Your task to perform on an android device: Search for "razer kraken" on walmart, select the first entry, and add it to the cart. Image 0: 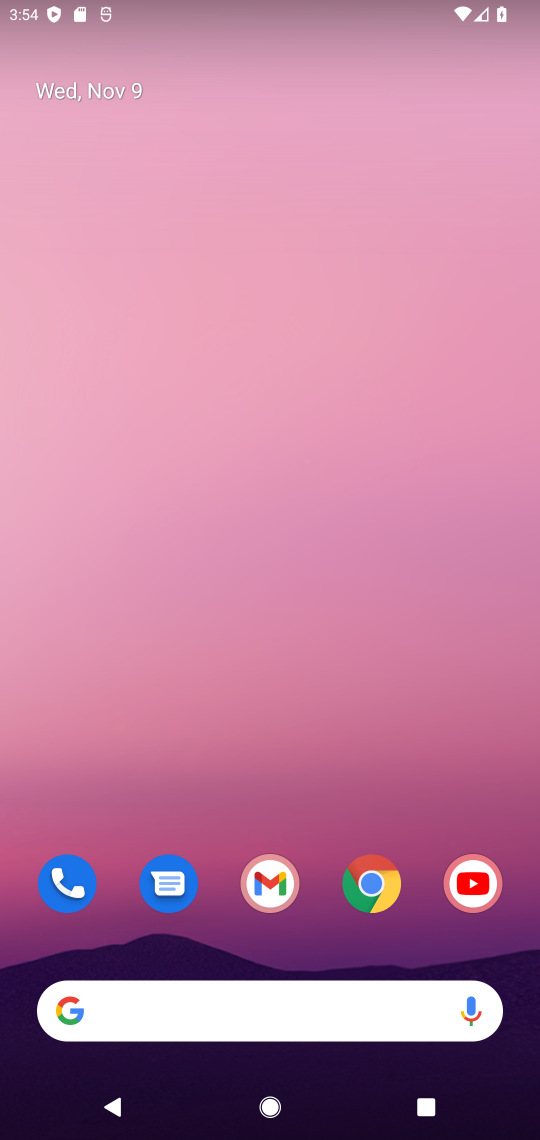
Step 0: click (388, 881)
Your task to perform on an android device: Search for "razer kraken" on walmart, select the first entry, and add it to the cart. Image 1: 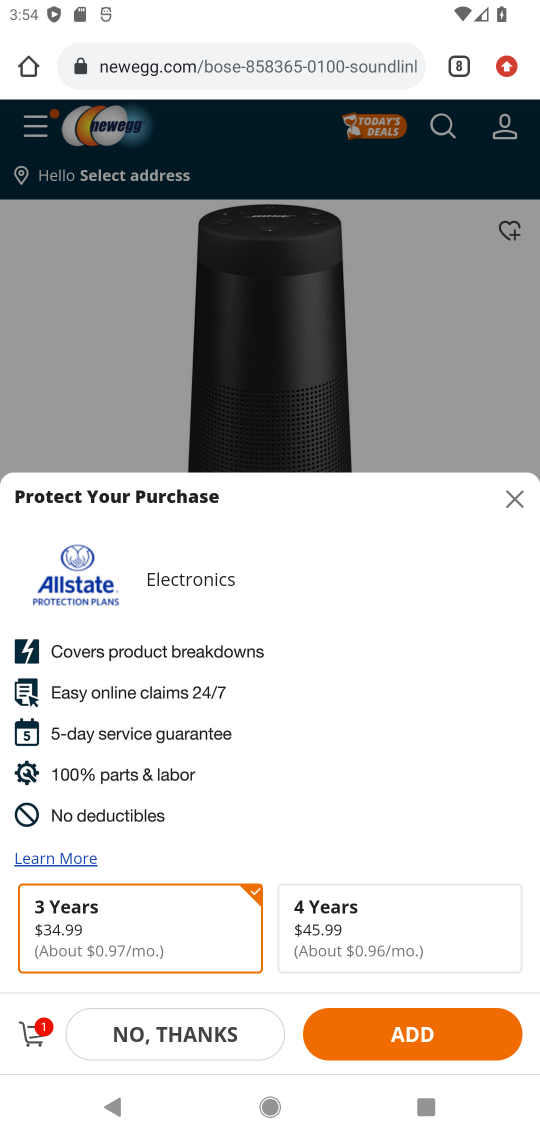
Step 1: click (464, 61)
Your task to perform on an android device: Search for "razer kraken" on walmart, select the first entry, and add it to the cart. Image 2: 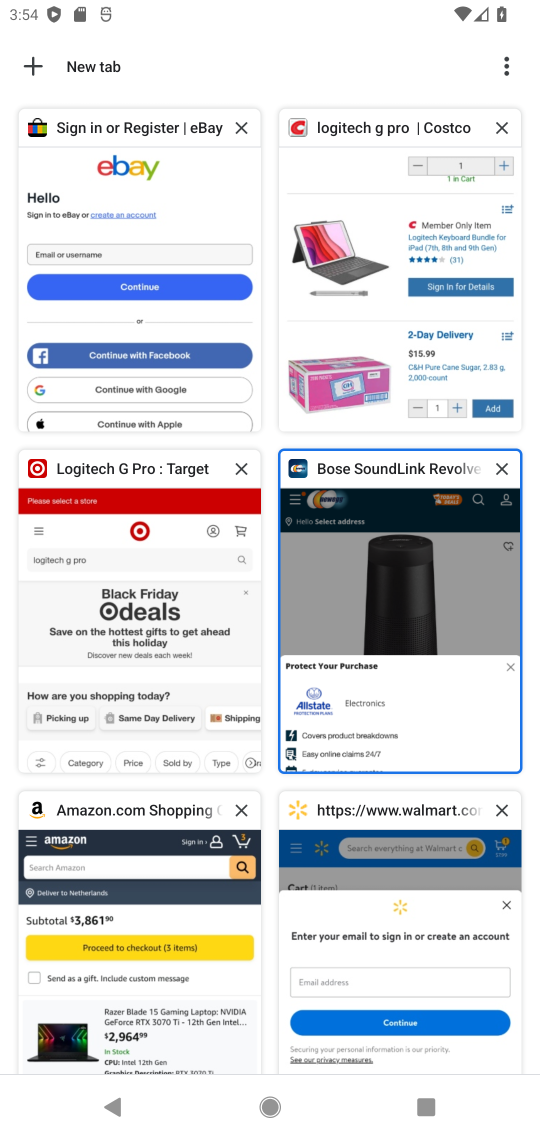
Step 2: click (337, 906)
Your task to perform on an android device: Search for "razer kraken" on walmart, select the first entry, and add it to the cart. Image 3: 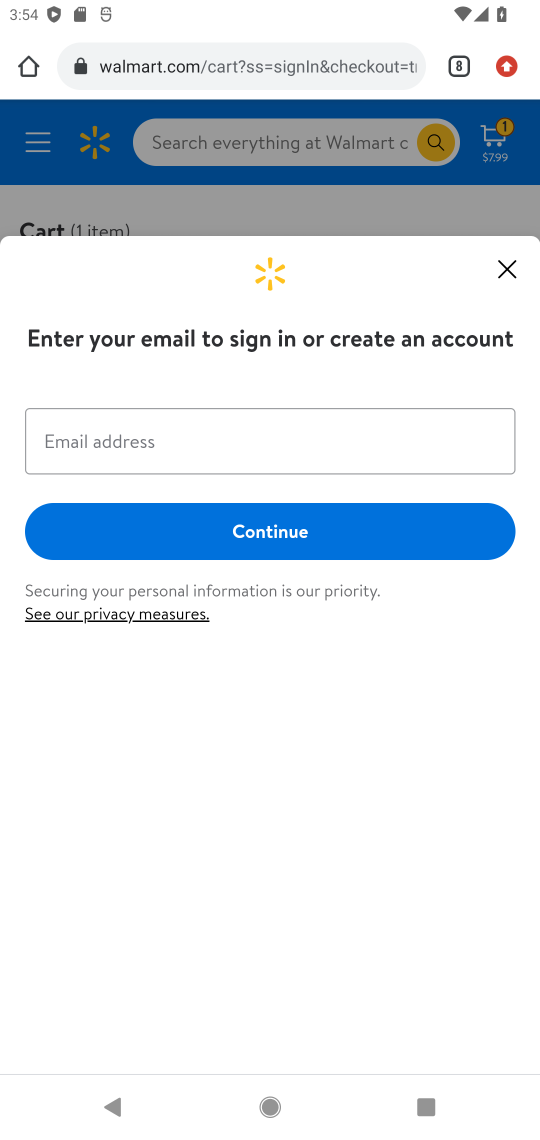
Step 3: click (514, 266)
Your task to perform on an android device: Search for "razer kraken" on walmart, select the first entry, and add it to the cart. Image 4: 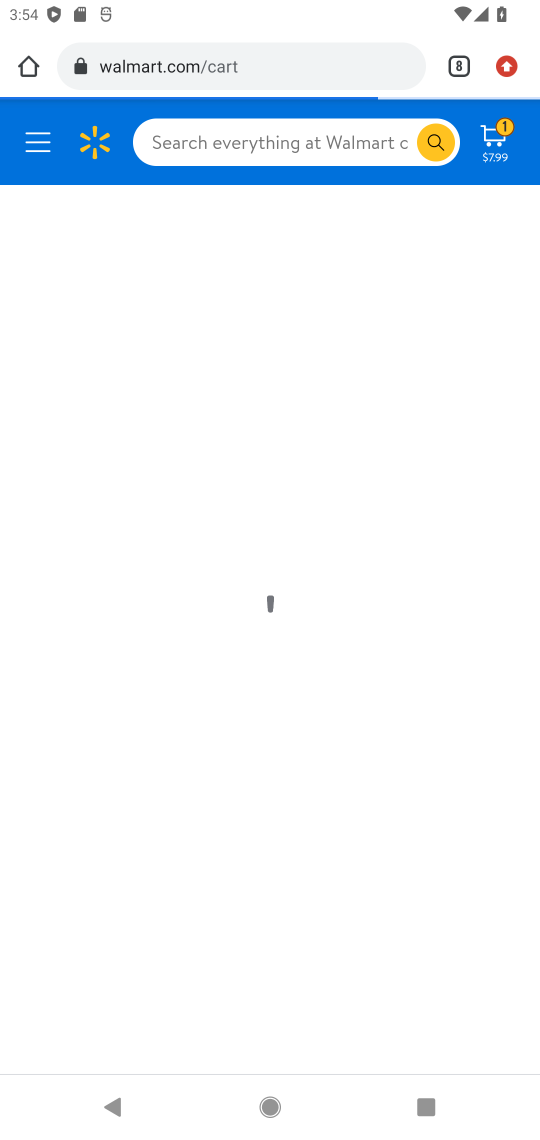
Step 4: click (298, 132)
Your task to perform on an android device: Search for "razer kraken" on walmart, select the first entry, and add it to the cart. Image 5: 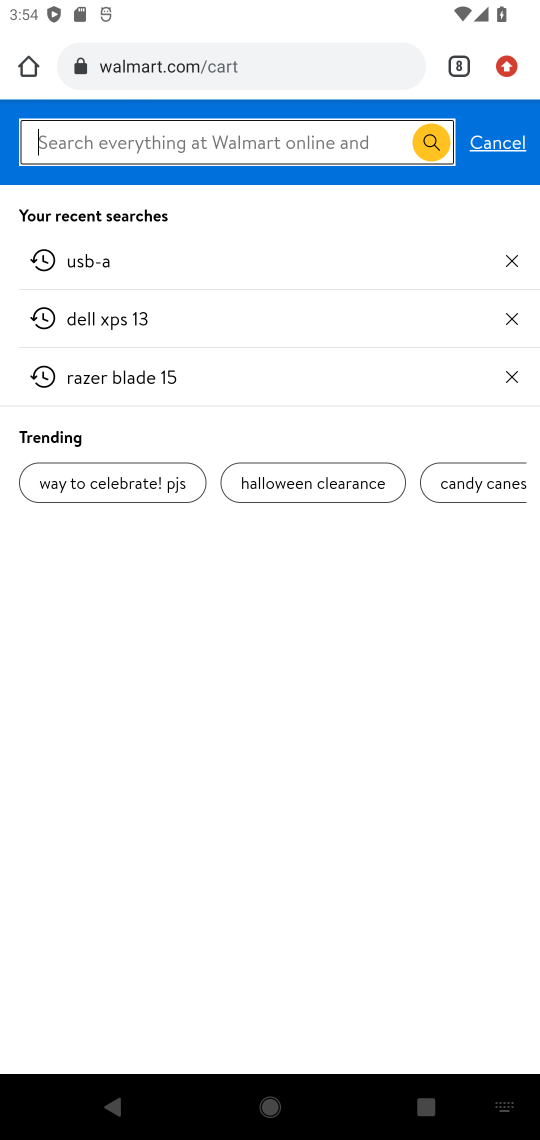
Step 5: type "razer kraken"
Your task to perform on an android device: Search for "razer kraken" on walmart, select the first entry, and add it to the cart. Image 6: 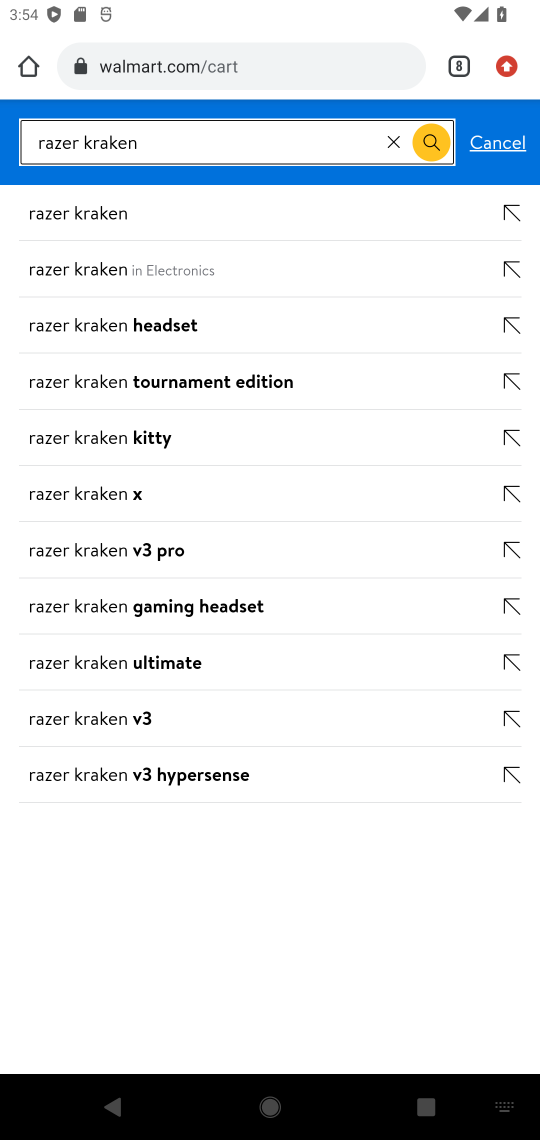
Step 6: click (94, 269)
Your task to perform on an android device: Search for "razer kraken" on walmart, select the first entry, and add it to the cart. Image 7: 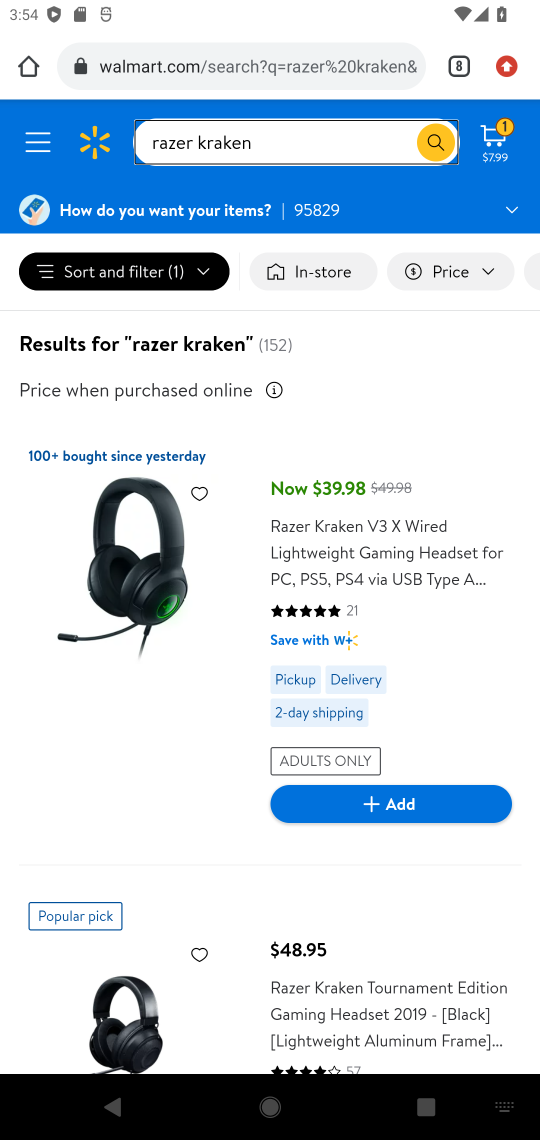
Step 7: click (394, 804)
Your task to perform on an android device: Search for "razer kraken" on walmart, select the first entry, and add it to the cart. Image 8: 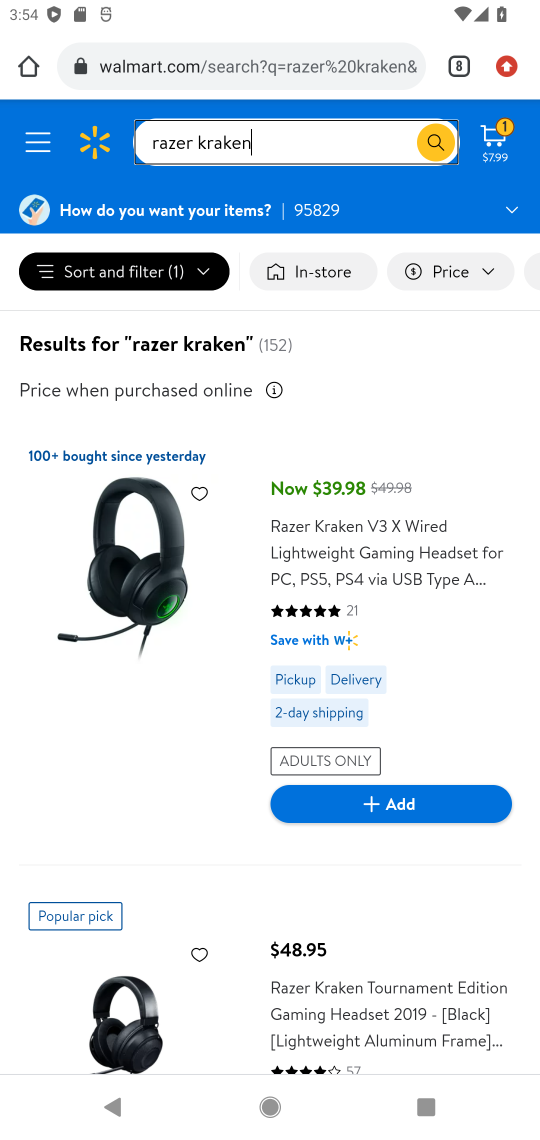
Step 8: click (420, 807)
Your task to perform on an android device: Search for "razer kraken" on walmart, select the first entry, and add it to the cart. Image 9: 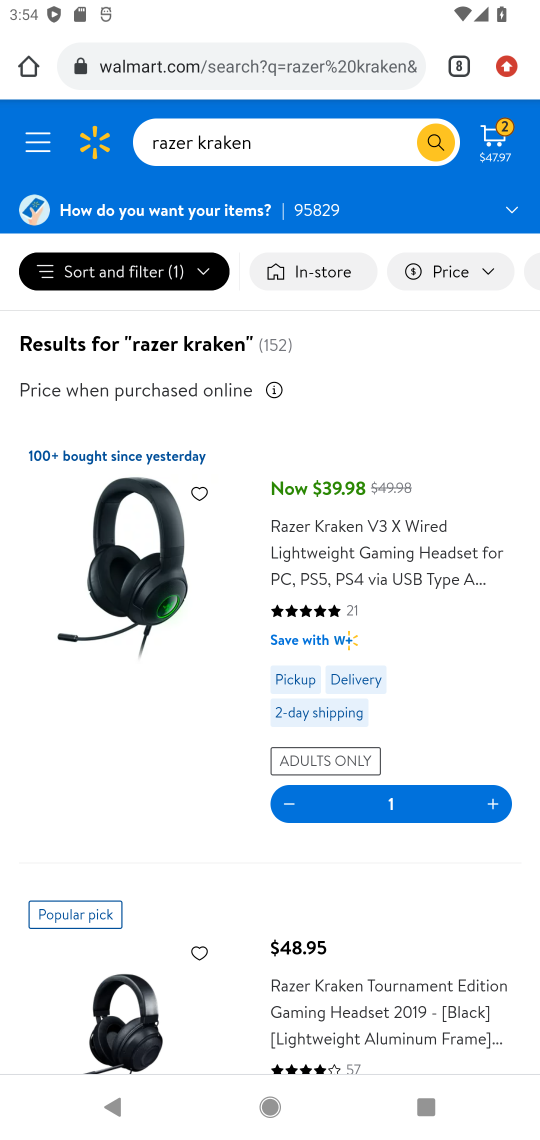
Step 9: click (389, 801)
Your task to perform on an android device: Search for "razer kraken" on walmart, select the first entry, and add it to the cart. Image 10: 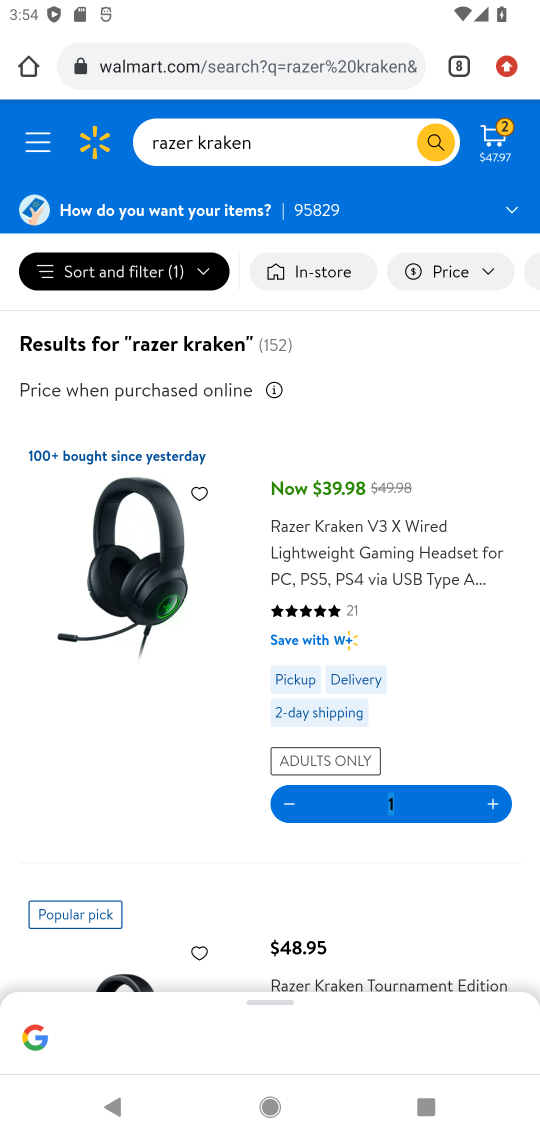
Step 10: task complete